Your task to perform on an android device: Do I have any events today? Image 0: 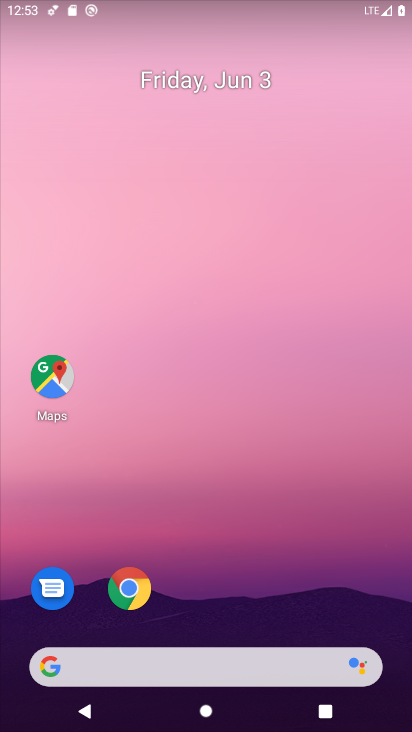
Step 0: drag from (244, 620) to (235, 62)
Your task to perform on an android device: Do I have any events today? Image 1: 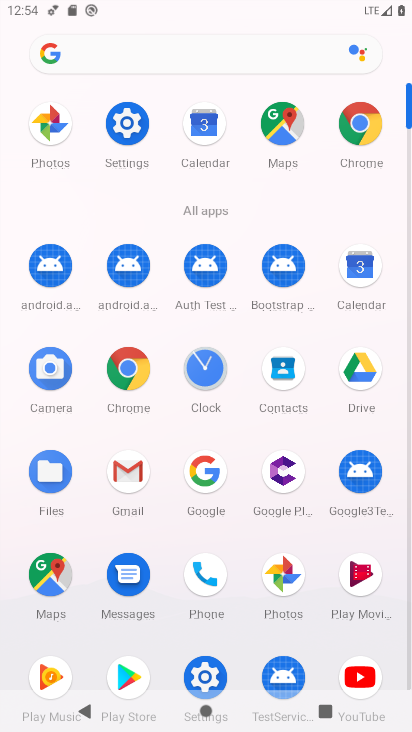
Step 1: click (208, 140)
Your task to perform on an android device: Do I have any events today? Image 2: 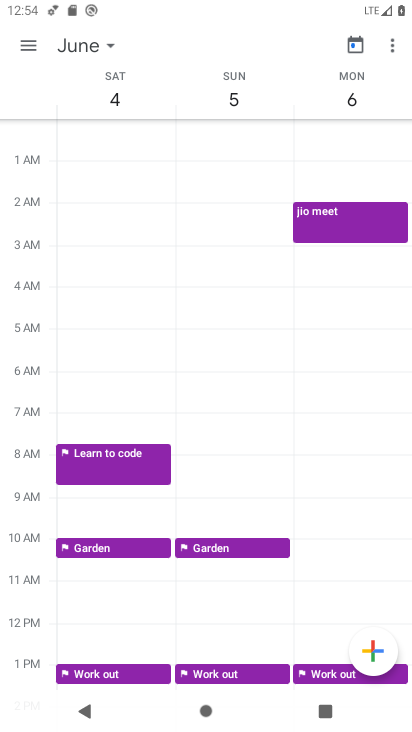
Step 2: click (20, 45)
Your task to perform on an android device: Do I have any events today? Image 3: 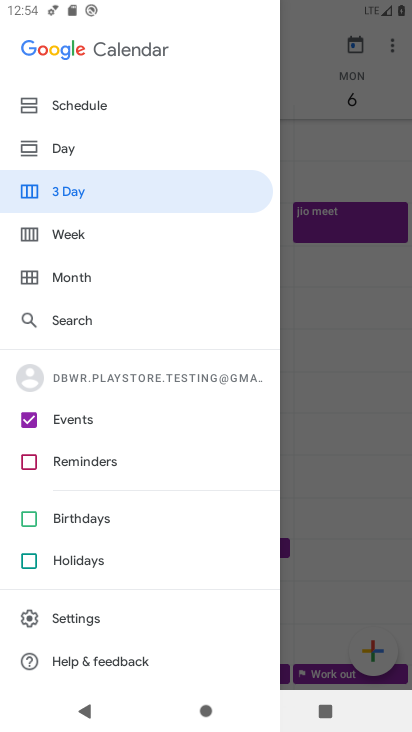
Step 3: click (46, 116)
Your task to perform on an android device: Do I have any events today? Image 4: 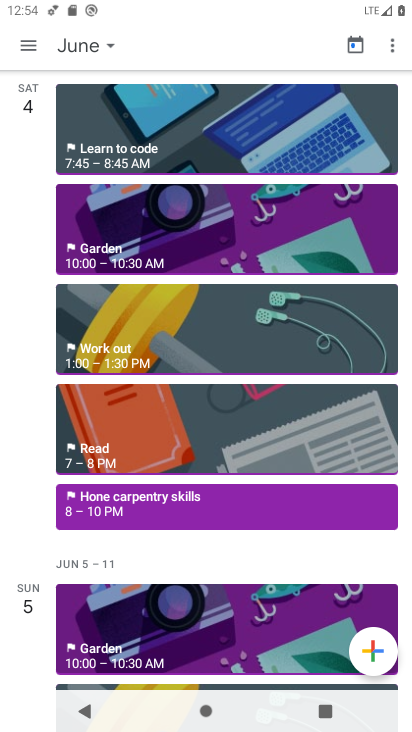
Step 4: click (86, 47)
Your task to perform on an android device: Do I have any events today? Image 5: 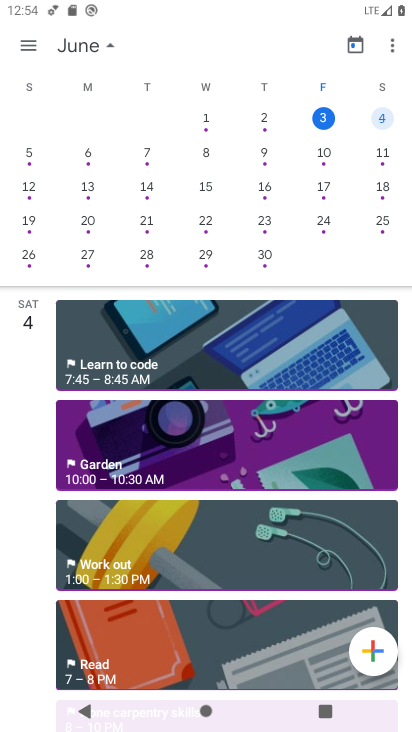
Step 5: click (328, 111)
Your task to perform on an android device: Do I have any events today? Image 6: 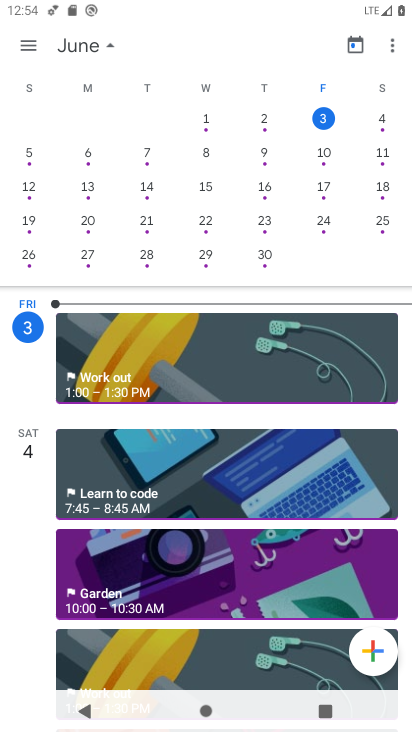
Step 6: task complete